Your task to perform on an android device: open chrome privacy settings Image 0: 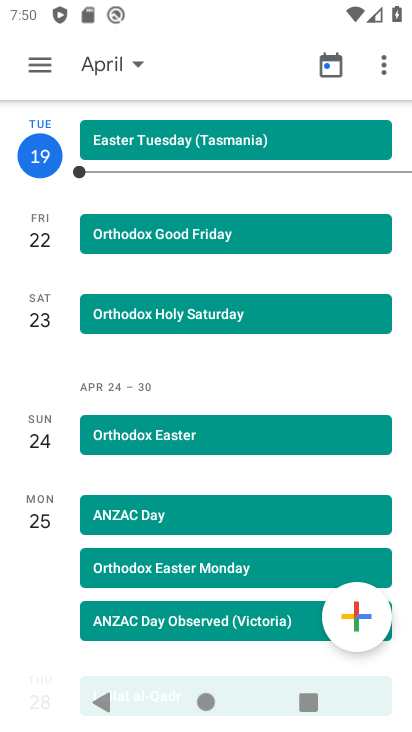
Step 0: press home button
Your task to perform on an android device: open chrome privacy settings Image 1: 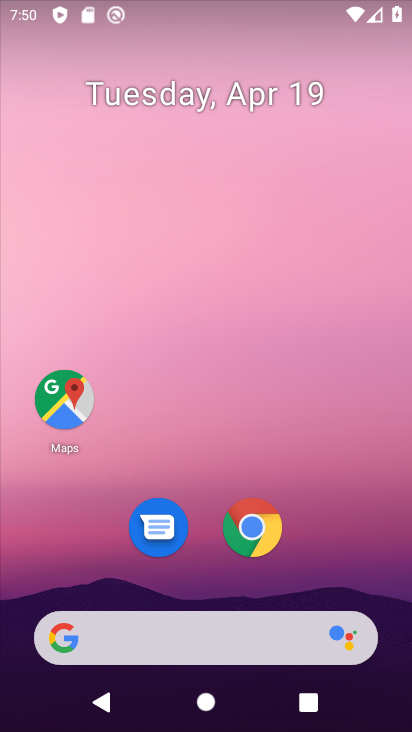
Step 1: click (248, 542)
Your task to perform on an android device: open chrome privacy settings Image 2: 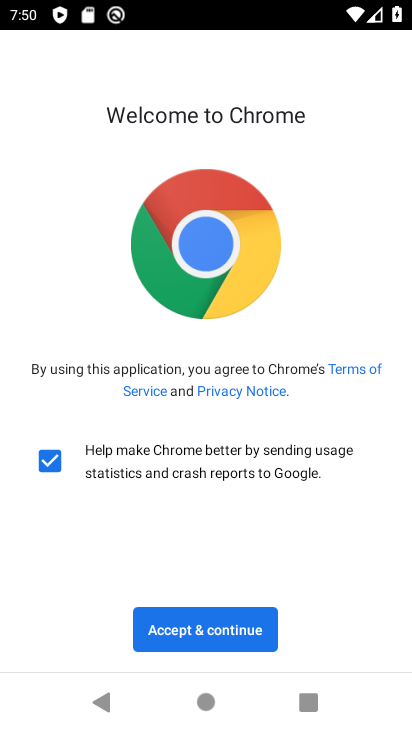
Step 2: click (213, 611)
Your task to perform on an android device: open chrome privacy settings Image 3: 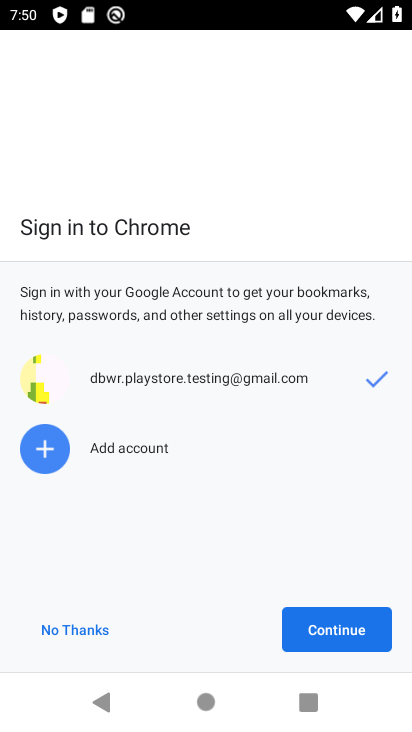
Step 3: click (314, 617)
Your task to perform on an android device: open chrome privacy settings Image 4: 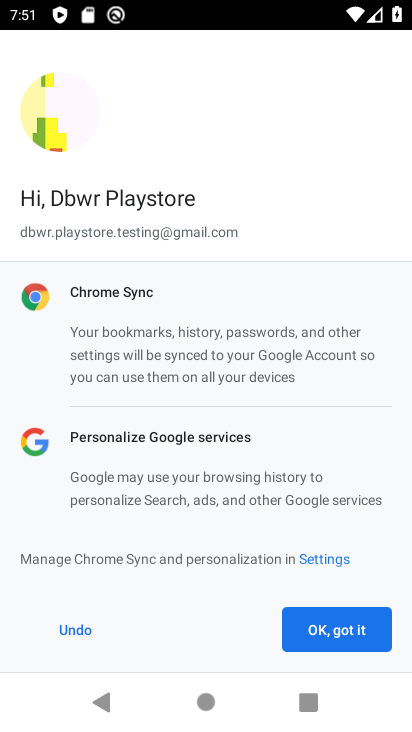
Step 4: click (338, 618)
Your task to perform on an android device: open chrome privacy settings Image 5: 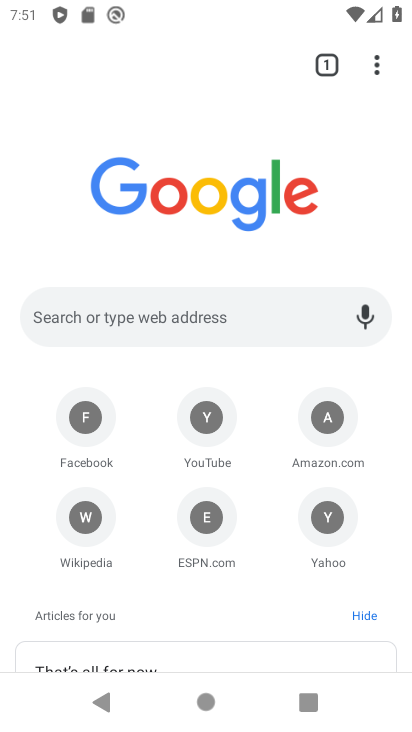
Step 5: drag from (367, 62) to (171, 537)
Your task to perform on an android device: open chrome privacy settings Image 6: 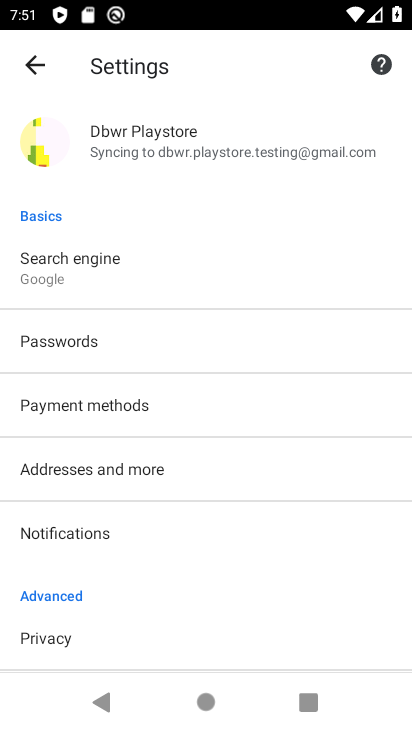
Step 6: drag from (150, 577) to (169, 342)
Your task to perform on an android device: open chrome privacy settings Image 7: 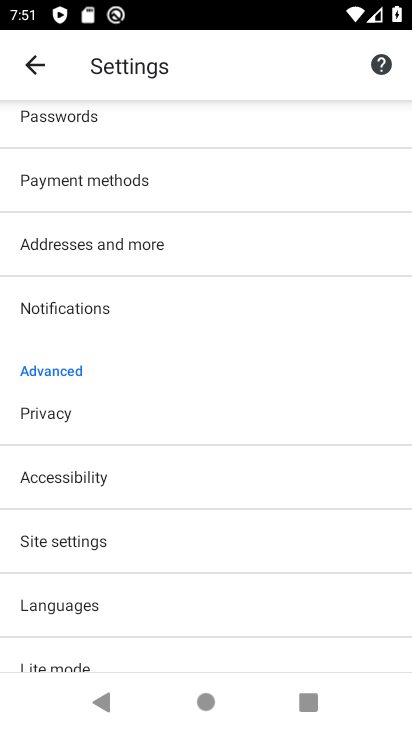
Step 7: drag from (125, 599) to (137, 406)
Your task to perform on an android device: open chrome privacy settings Image 8: 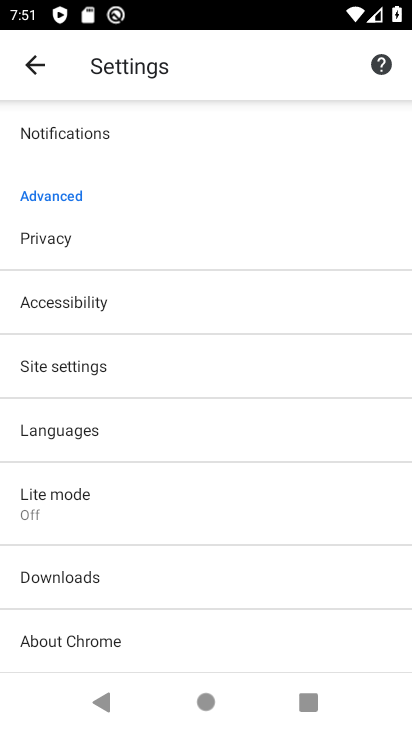
Step 8: click (74, 245)
Your task to perform on an android device: open chrome privacy settings Image 9: 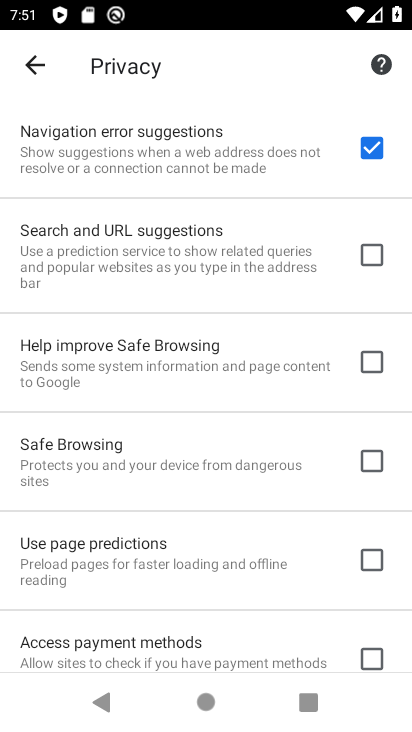
Step 9: task complete